Your task to perform on an android device: What's the weather today? Image 0: 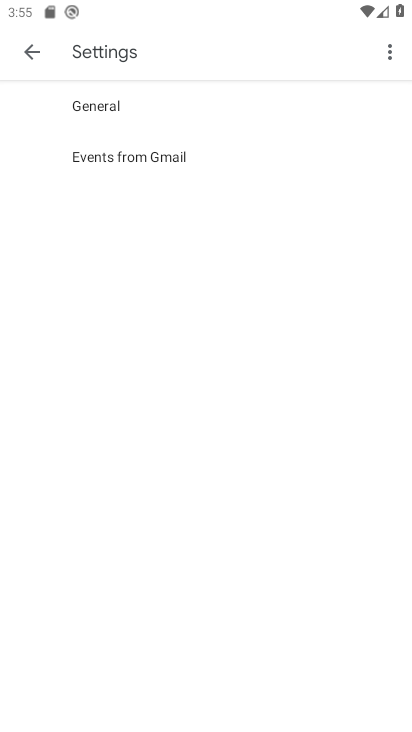
Step 0: press home button
Your task to perform on an android device: What's the weather today? Image 1: 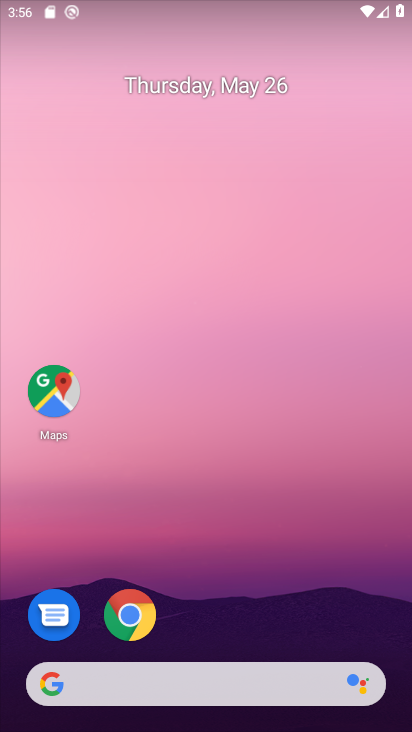
Step 1: drag from (2, 304) to (393, 248)
Your task to perform on an android device: What's the weather today? Image 2: 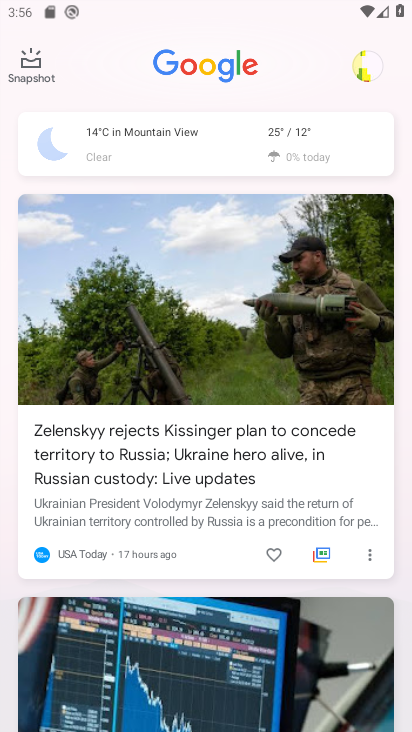
Step 2: click (256, 154)
Your task to perform on an android device: What's the weather today? Image 3: 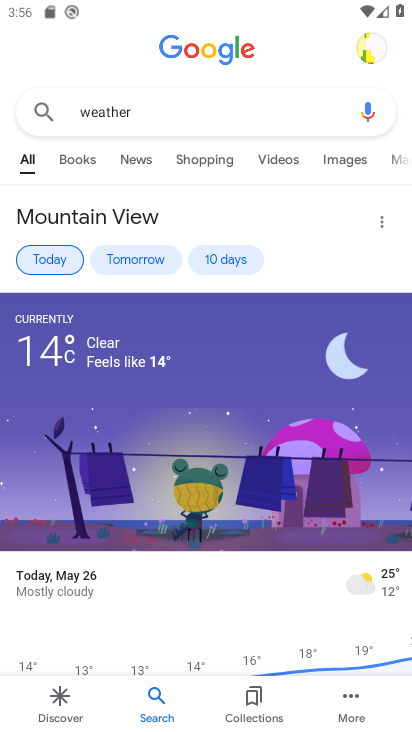
Step 3: task complete